Your task to perform on an android device: all mails in gmail Image 0: 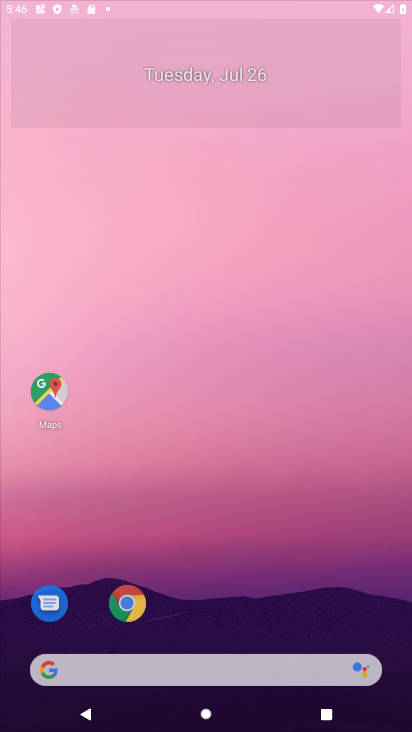
Step 0: press home button
Your task to perform on an android device: all mails in gmail Image 1: 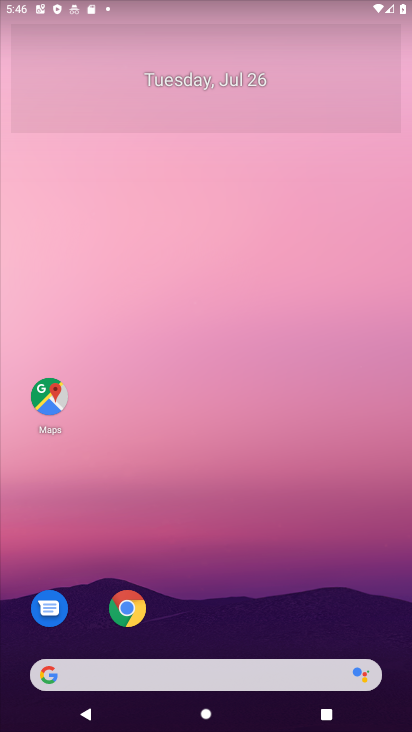
Step 1: drag from (260, 637) to (137, 22)
Your task to perform on an android device: all mails in gmail Image 2: 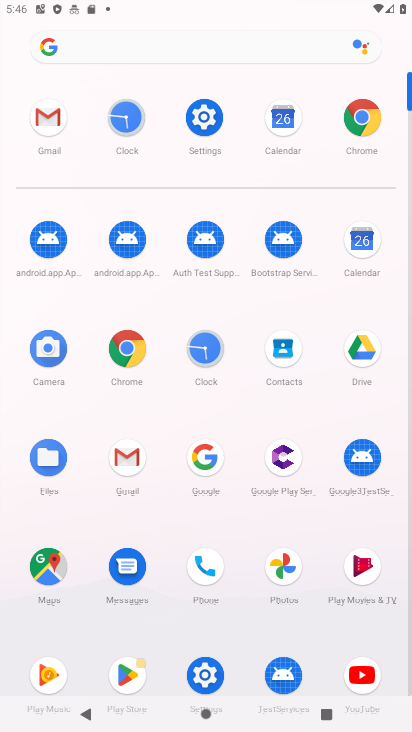
Step 2: click (31, 114)
Your task to perform on an android device: all mails in gmail Image 3: 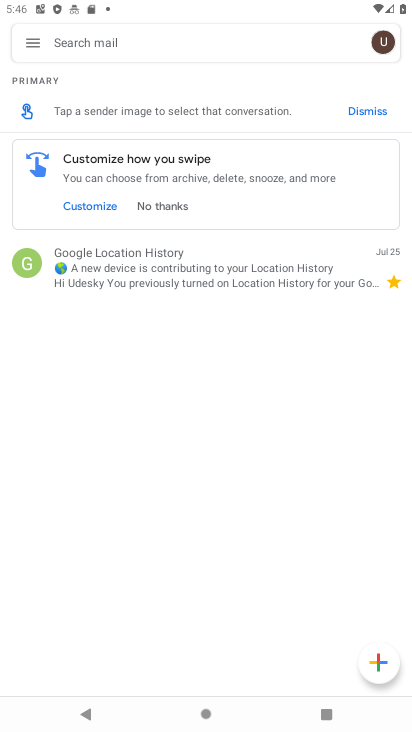
Step 3: click (21, 37)
Your task to perform on an android device: all mails in gmail Image 4: 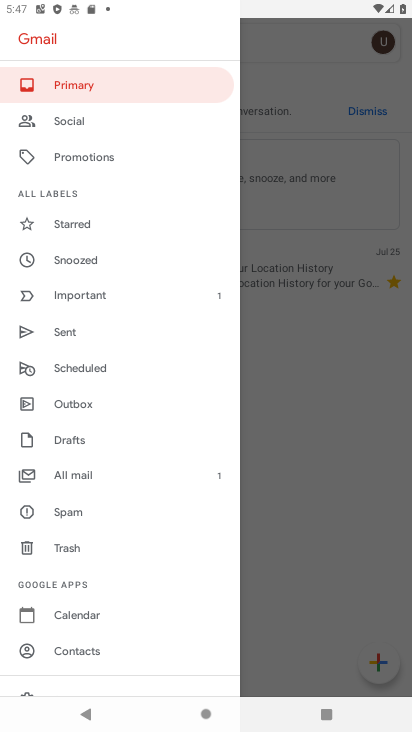
Step 4: click (63, 480)
Your task to perform on an android device: all mails in gmail Image 5: 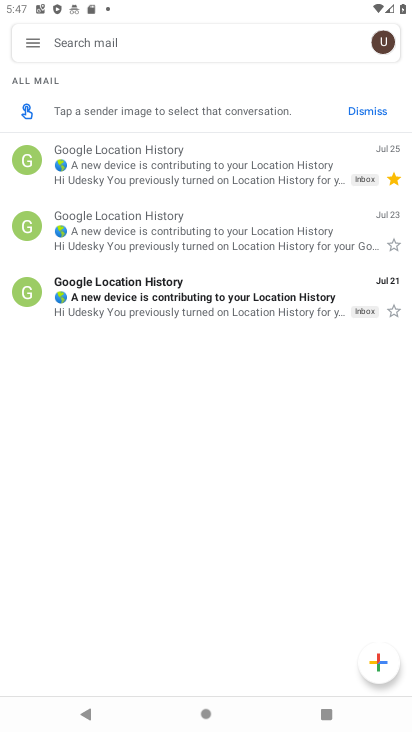
Step 5: task complete